Your task to perform on an android device: turn on the 24-hour format for clock Image 0: 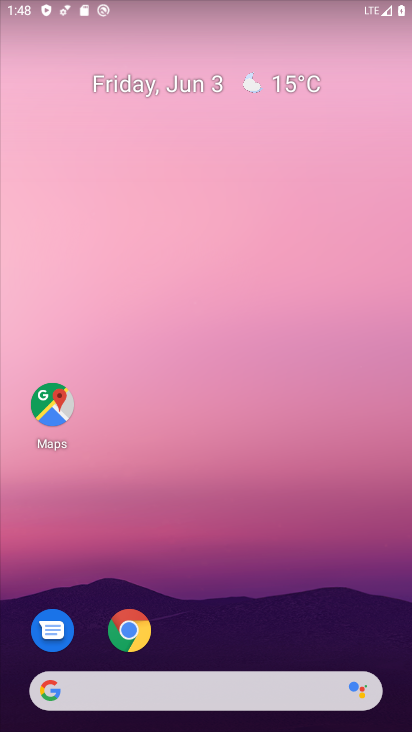
Step 0: drag from (383, 719) to (278, 1)
Your task to perform on an android device: turn on the 24-hour format for clock Image 1: 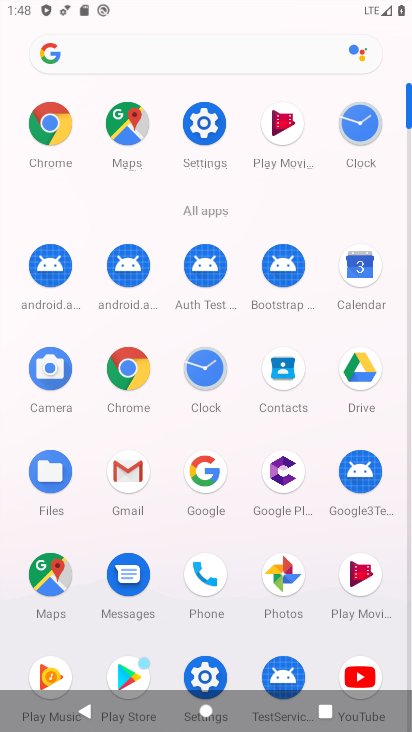
Step 1: click (228, 353)
Your task to perform on an android device: turn on the 24-hour format for clock Image 2: 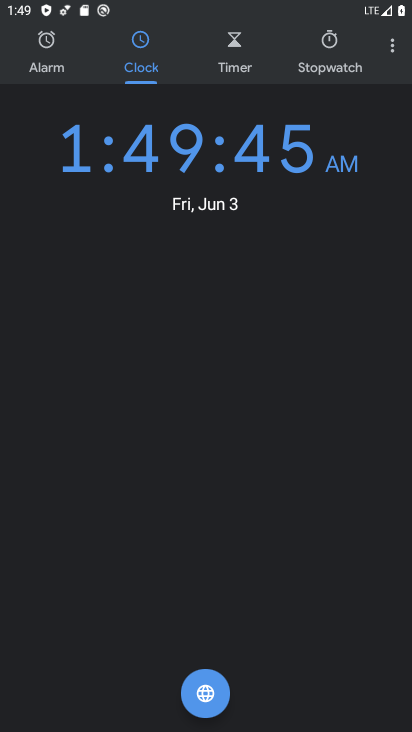
Step 2: click (387, 44)
Your task to perform on an android device: turn on the 24-hour format for clock Image 3: 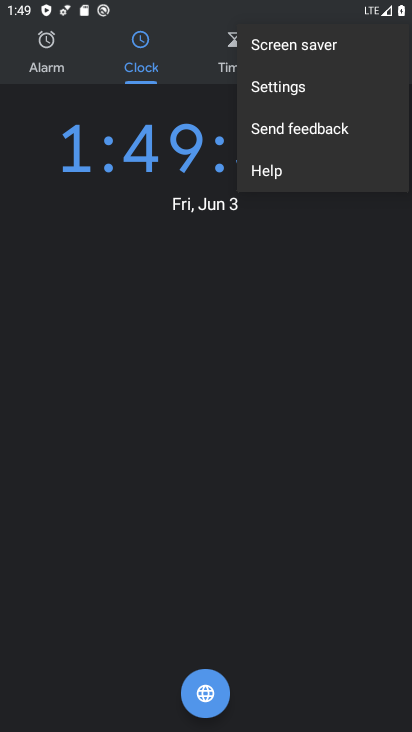
Step 3: click (256, 76)
Your task to perform on an android device: turn on the 24-hour format for clock Image 4: 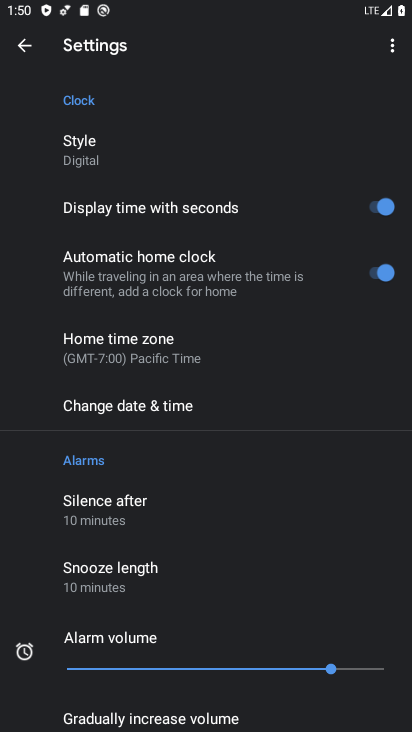
Step 4: drag from (211, 591) to (212, 342)
Your task to perform on an android device: turn on the 24-hour format for clock Image 5: 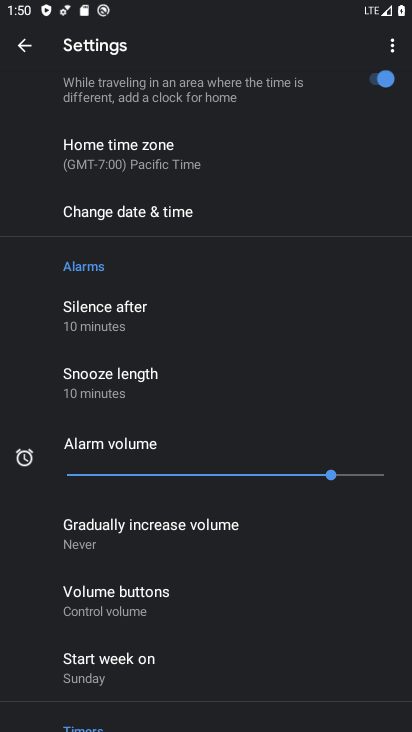
Step 5: click (101, 223)
Your task to perform on an android device: turn on the 24-hour format for clock Image 6: 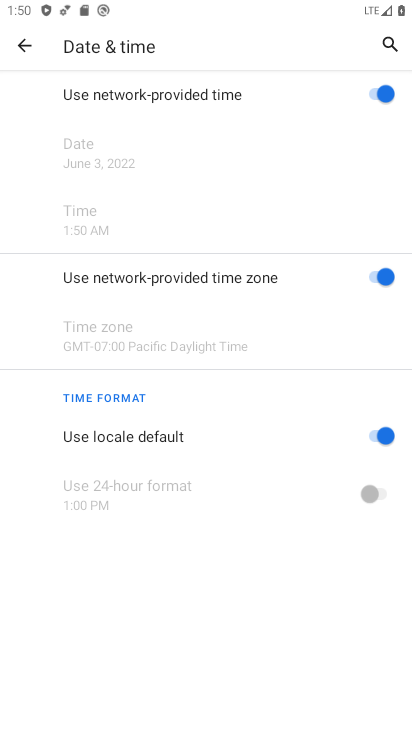
Step 6: click (371, 442)
Your task to perform on an android device: turn on the 24-hour format for clock Image 7: 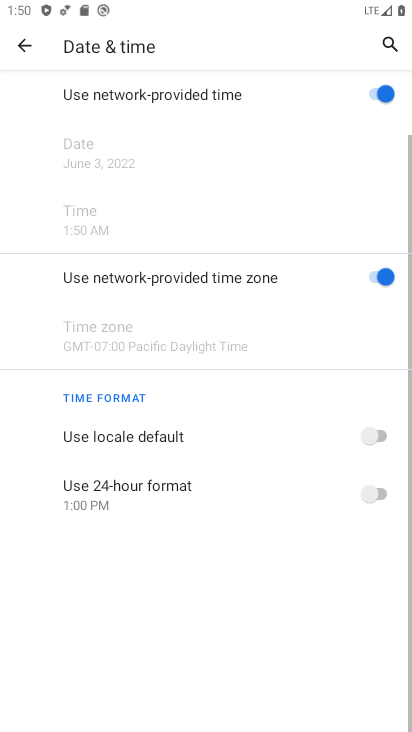
Step 7: click (382, 499)
Your task to perform on an android device: turn on the 24-hour format for clock Image 8: 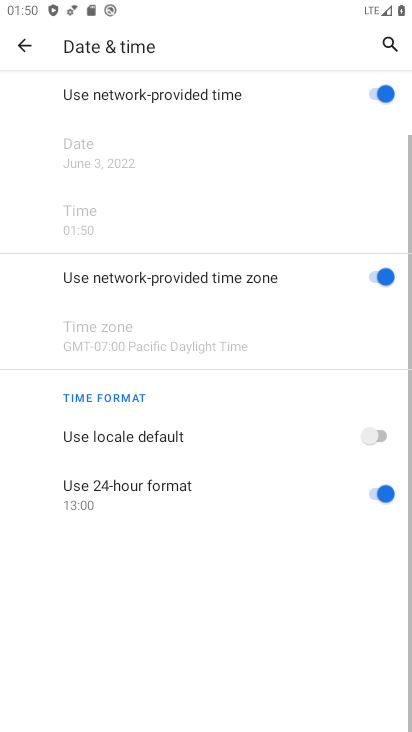
Step 8: task complete